Your task to perform on an android device: stop showing notifications on the lock screen Image 0: 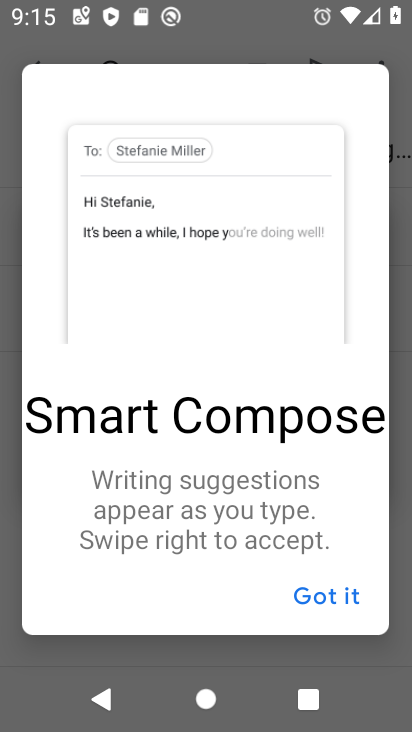
Step 0: press home button
Your task to perform on an android device: stop showing notifications on the lock screen Image 1: 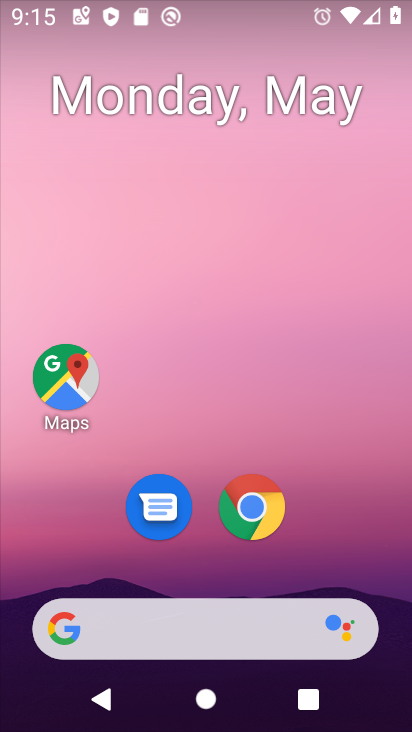
Step 1: drag from (196, 571) to (153, 14)
Your task to perform on an android device: stop showing notifications on the lock screen Image 2: 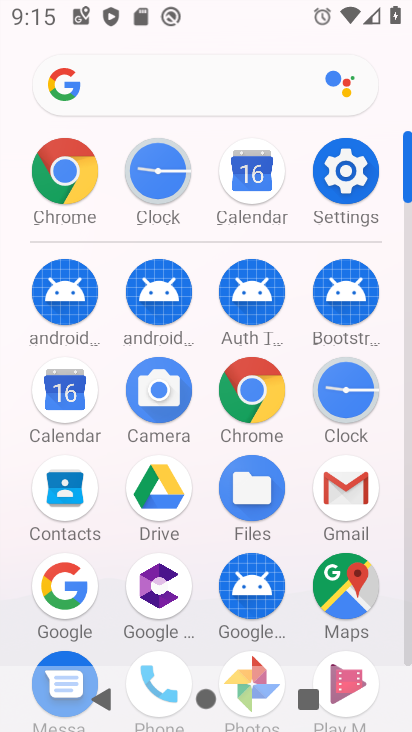
Step 2: click (359, 186)
Your task to perform on an android device: stop showing notifications on the lock screen Image 3: 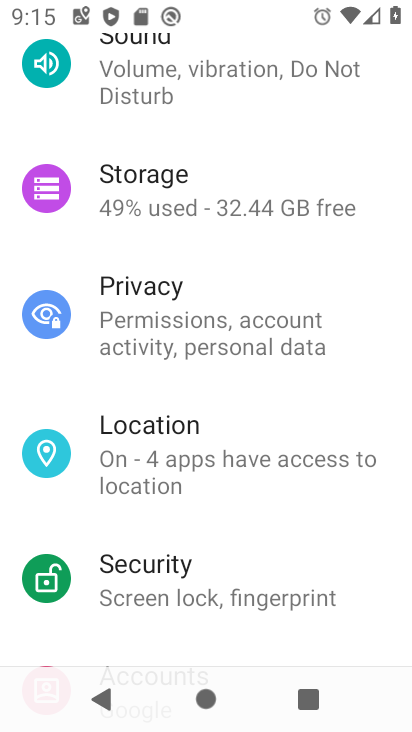
Step 3: click (245, 459)
Your task to perform on an android device: stop showing notifications on the lock screen Image 4: 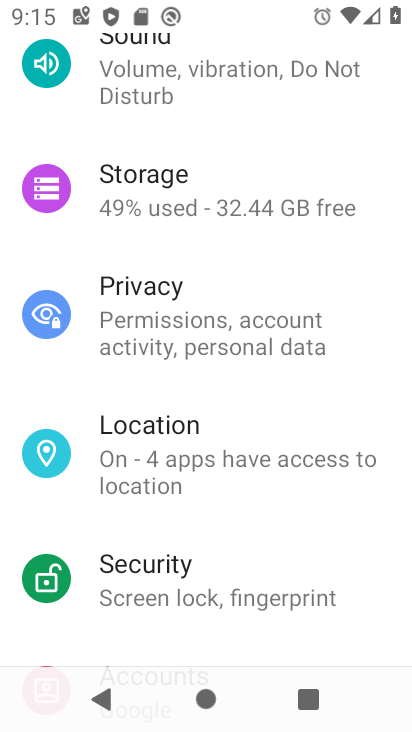
Step 4: drag from (231, 212) to (216, 661)
Your task to perform on an android device: stop showing notifications on the lock screen Image 5: 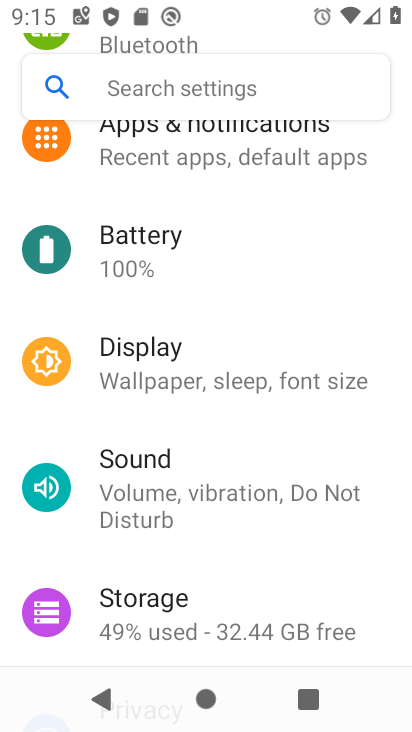
Step 5: click (222, 155)
Your task to perform on an android device: stop showing notifications on the lock screen Image 6: 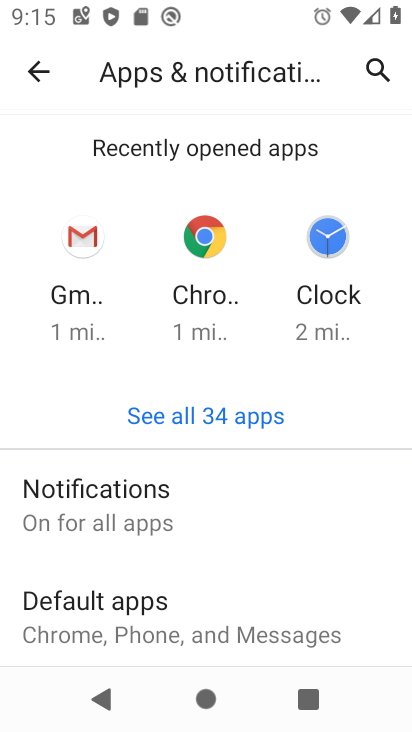
Step 6: click (139, 501)
Your task to perform on an android device: stop showing notifications on the lock screen Image 7: 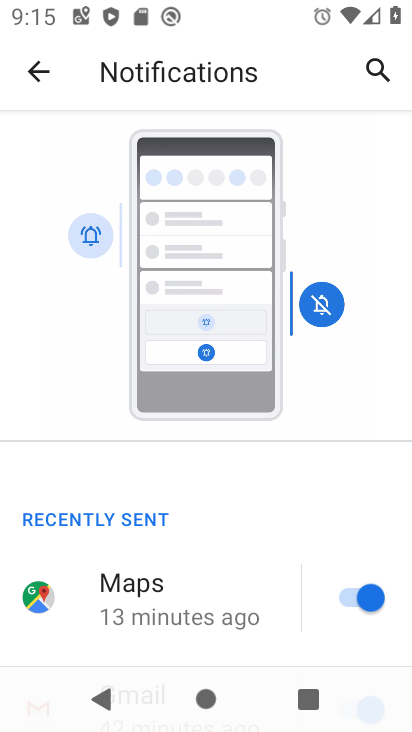
Step 7: drag from (133, 562) to (228, 143)
Your task to perform on an android device: stop showing notifications on the lock screen Image 8: 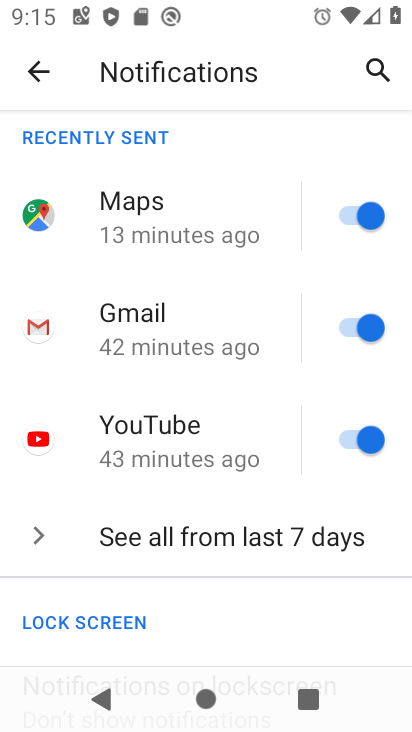
Step 8: drag from (175, 552) to (228, 264)
Your task to perform on an android device: stop showing notifications on the lock screen Image 9: 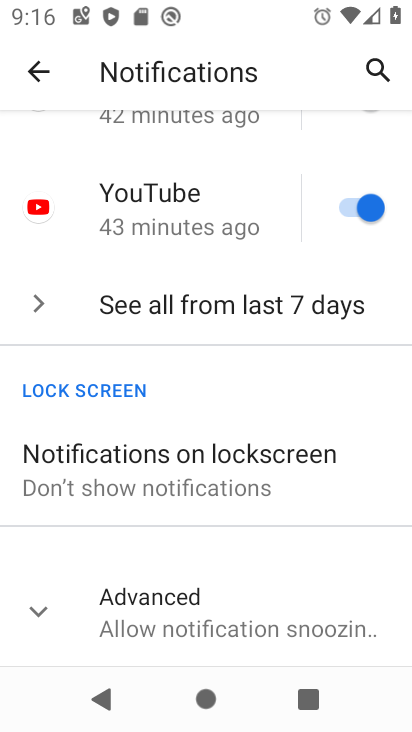
Step 9: click (184, 479)
Your task to perform on an android device: stop showing notifications on the lock screen Image 10: 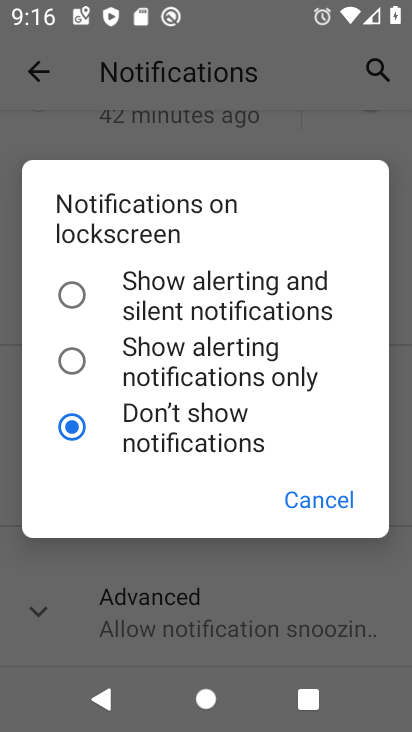
Step 10: task complete